Your task to perform on an android device: turn off picture-in-picture Image 0: 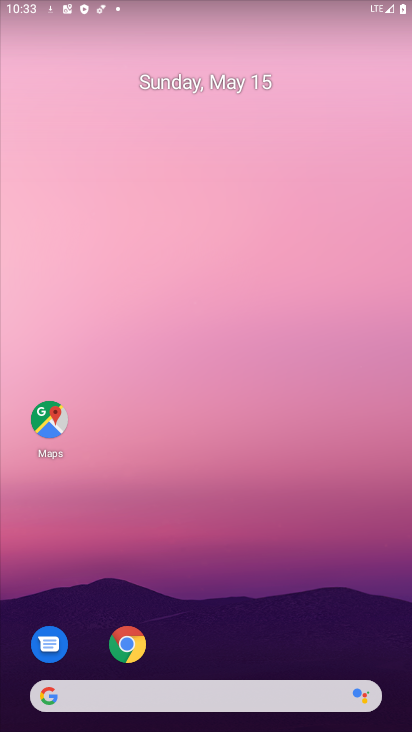
Step 0: drag from (279, 724) to (214, 369)
Your task to perform on an android device: turn off picture-in-picture Image 1: 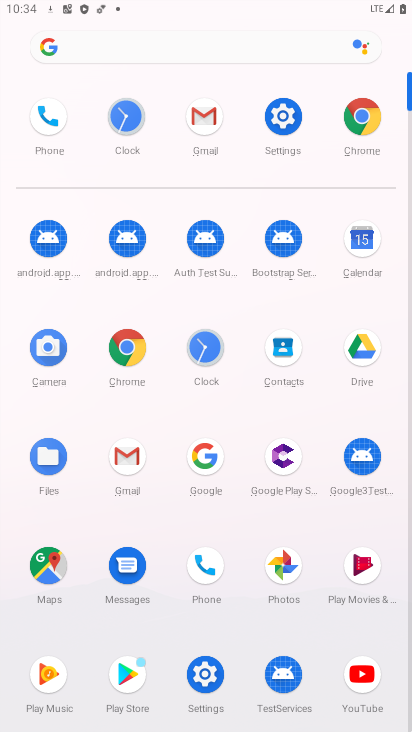
Step 1: click (272, 126)
Your task to perform on an android device: turn off picture-in-picture Image 2: 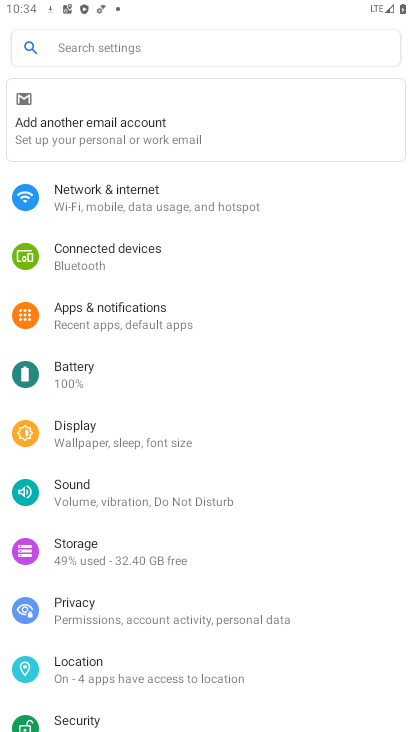
Step 2: click (151, 41)
Your task to perform on an android device: turn off picture-in-picture Image 3: 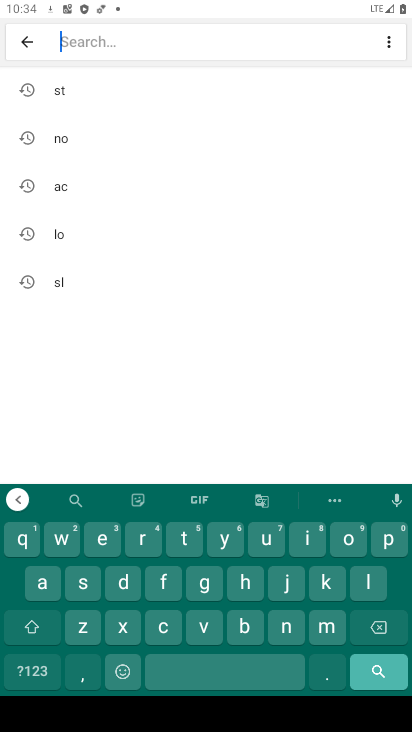
Step 3: click (389, 550)
Your task to perform on an android device: turn off picture-in-picture Image 4: 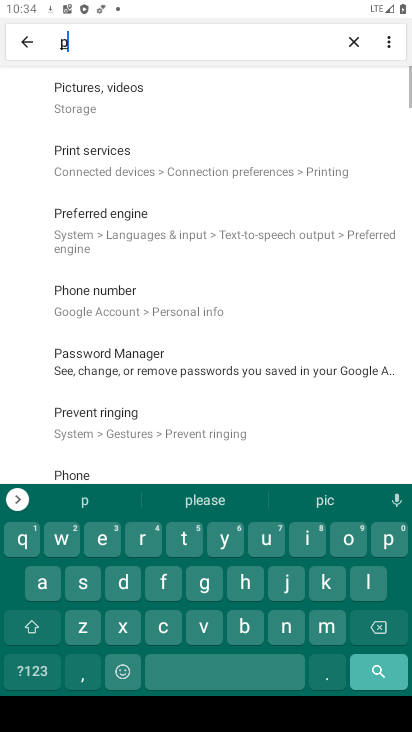
Step 4: click (308, 541)
Your task to perform on an android device: turn off picture-in-picture Image 5: 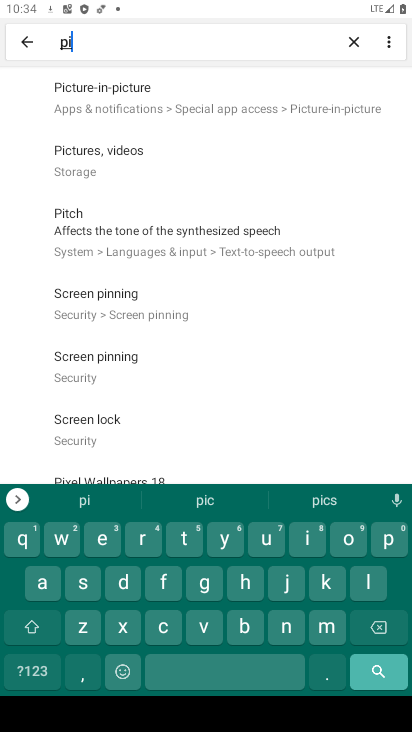
Step 5: click (104, 104)
Your task to perform on an android device: turn off picture-in-picture Image 6: 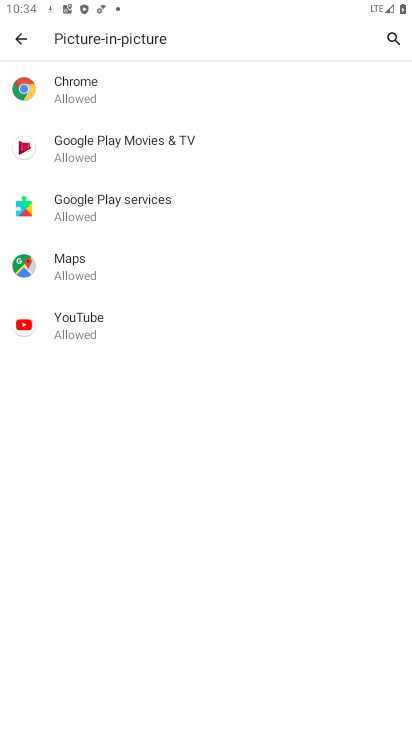
Step 6: task complete